Your task to perform on an android device: change the clock display to analog Image 0: 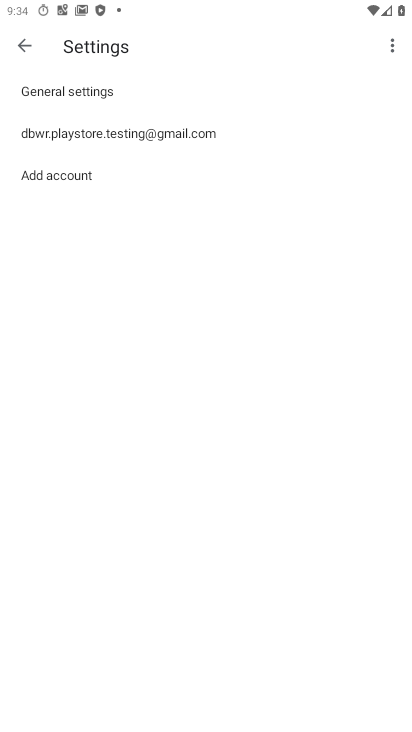
Step 0: press home button
Your task to perform on an android device: change the clock display to analog Image 1: 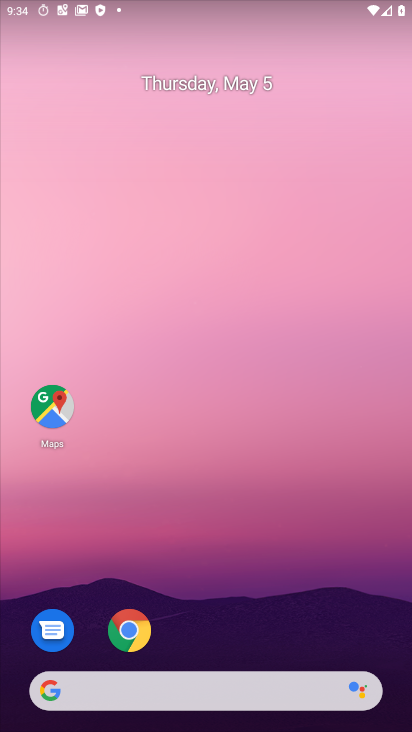
Step 1: drag from (232, 564) to (90, 88)
Your task to perform on an android device: change the clock display to analog Image 2: 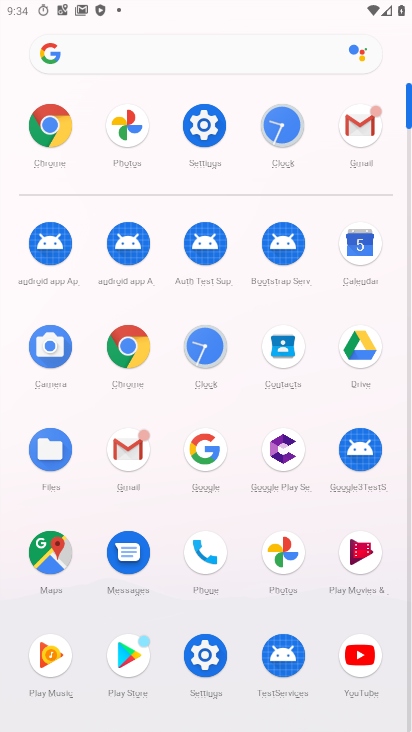
Step 2: click (276, 133)
Your task to perform on an android device: change the clock display to analog Image 3: 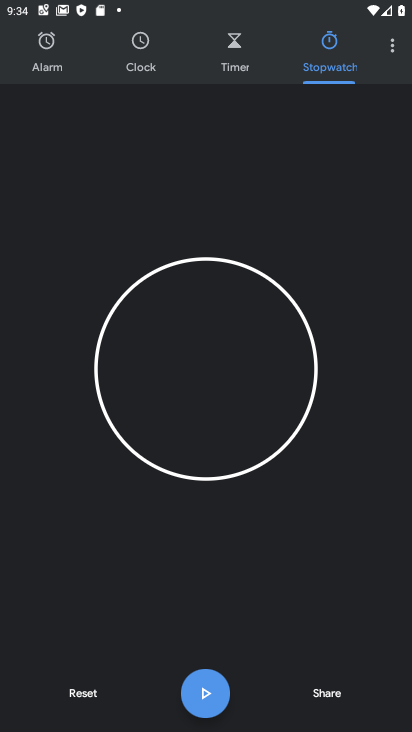
Step 3: click (392, 47)
Your task to perform on an android device: change the clock display to analog Image 4: 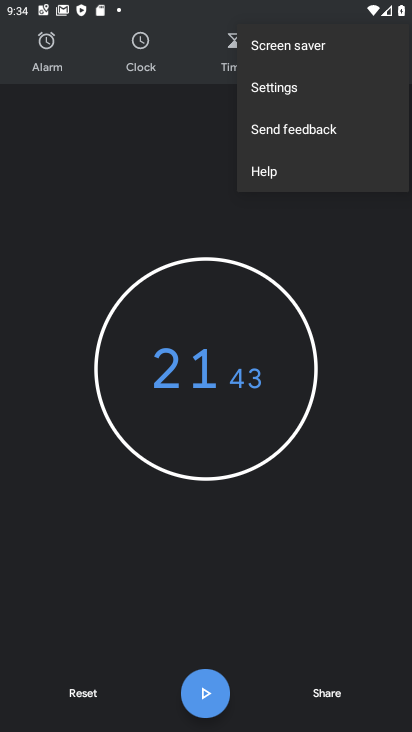
Step 4: click (279, 86)
Your task to perform on an android device: change the clock display to analog Image 5: 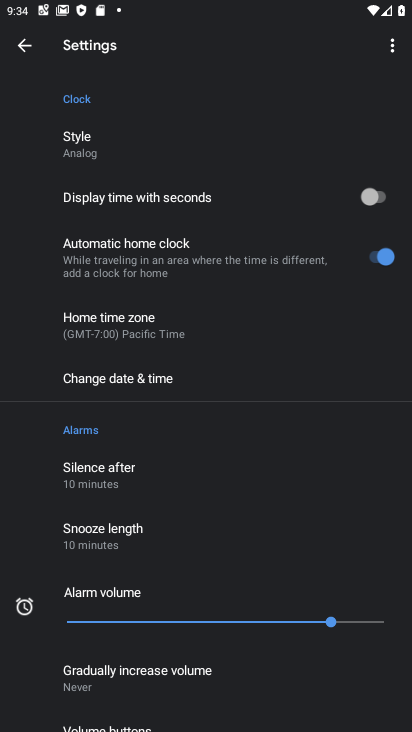
Step 5: task complete